Your task to perform on an android device: open app "ColorNote Notepad Notes" (install if not already installed) and go to login screen Image 0: 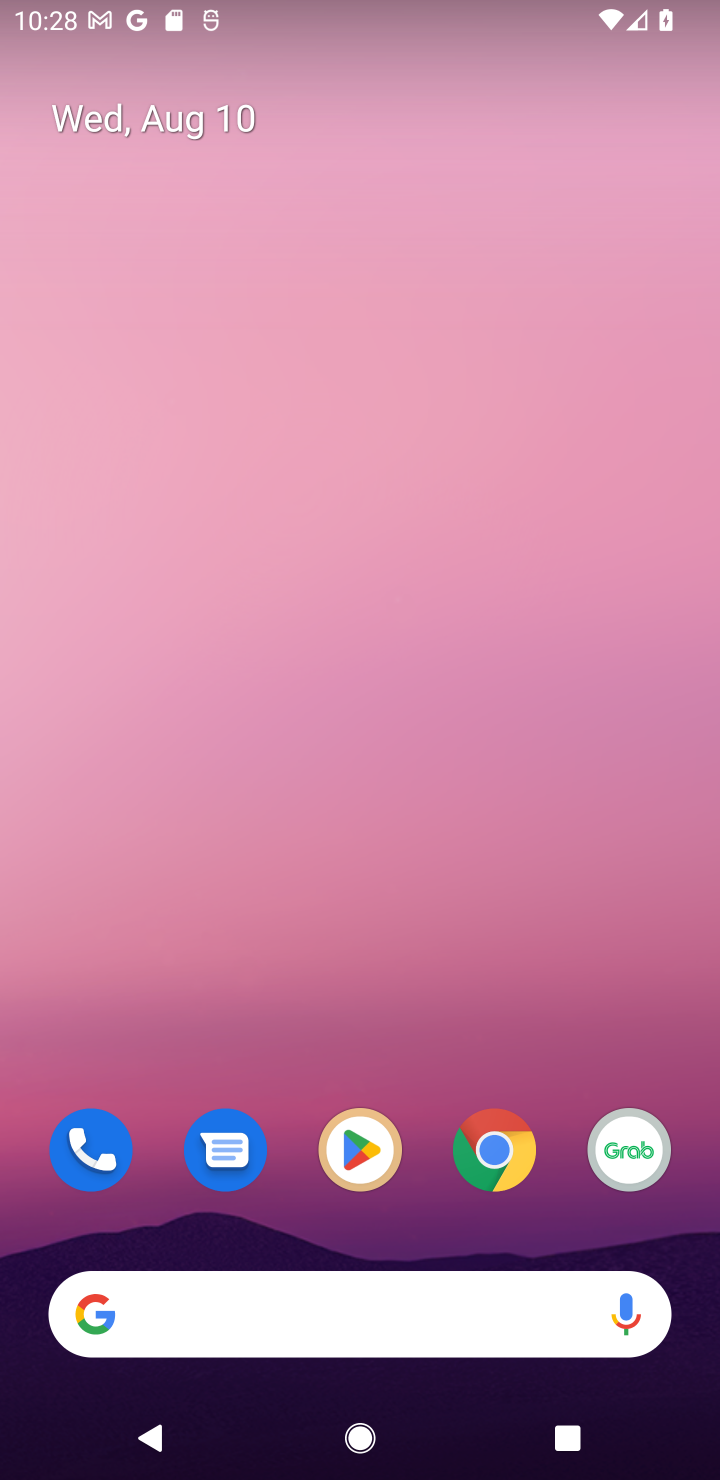
Step 0: click (358, 1133)
Your task to perform on an android device: open app "ColorNote Notepad Notes" (install if not already installed) and go to login screen Image 1: 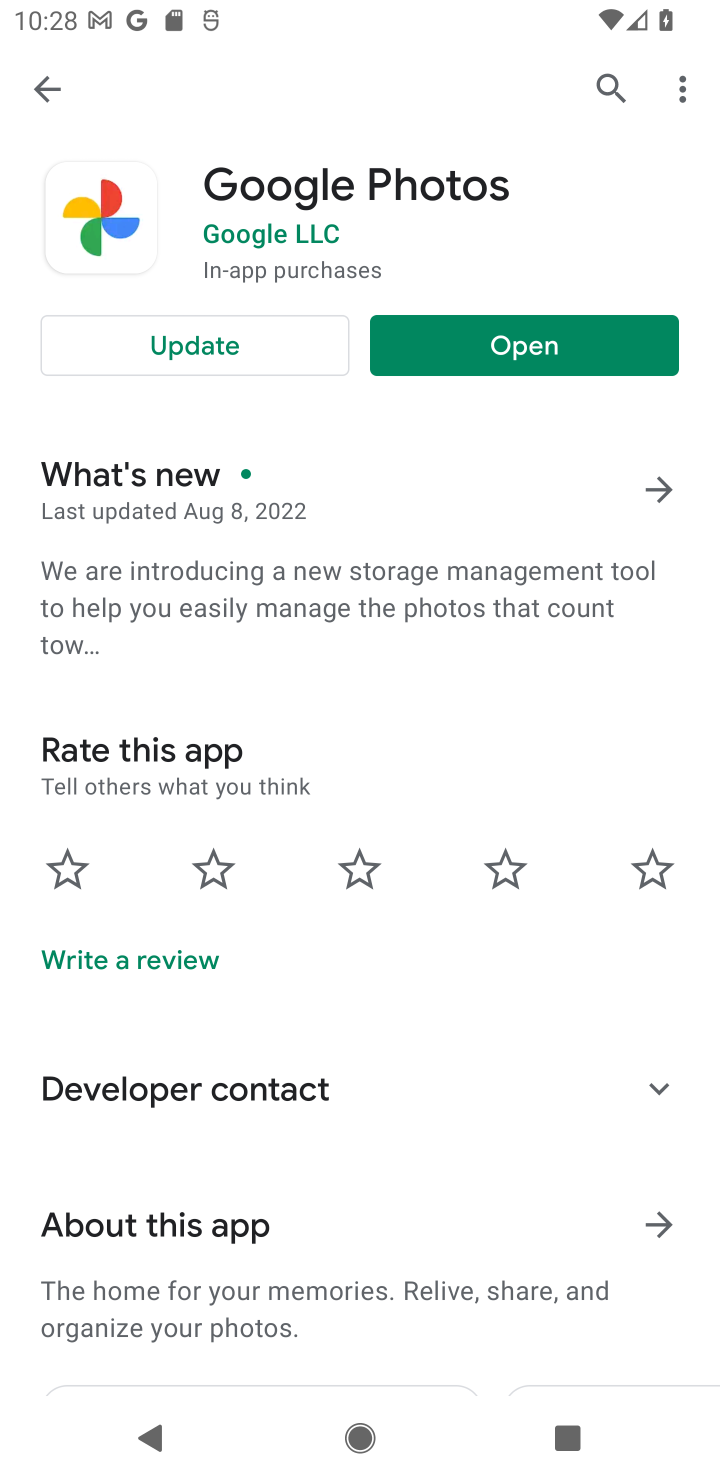
Step 1: click (613, 85)
Your task to perform on an android device: open app "ColorNote Notepad Notes" (install if not already installed) and go to login screen Image 2: 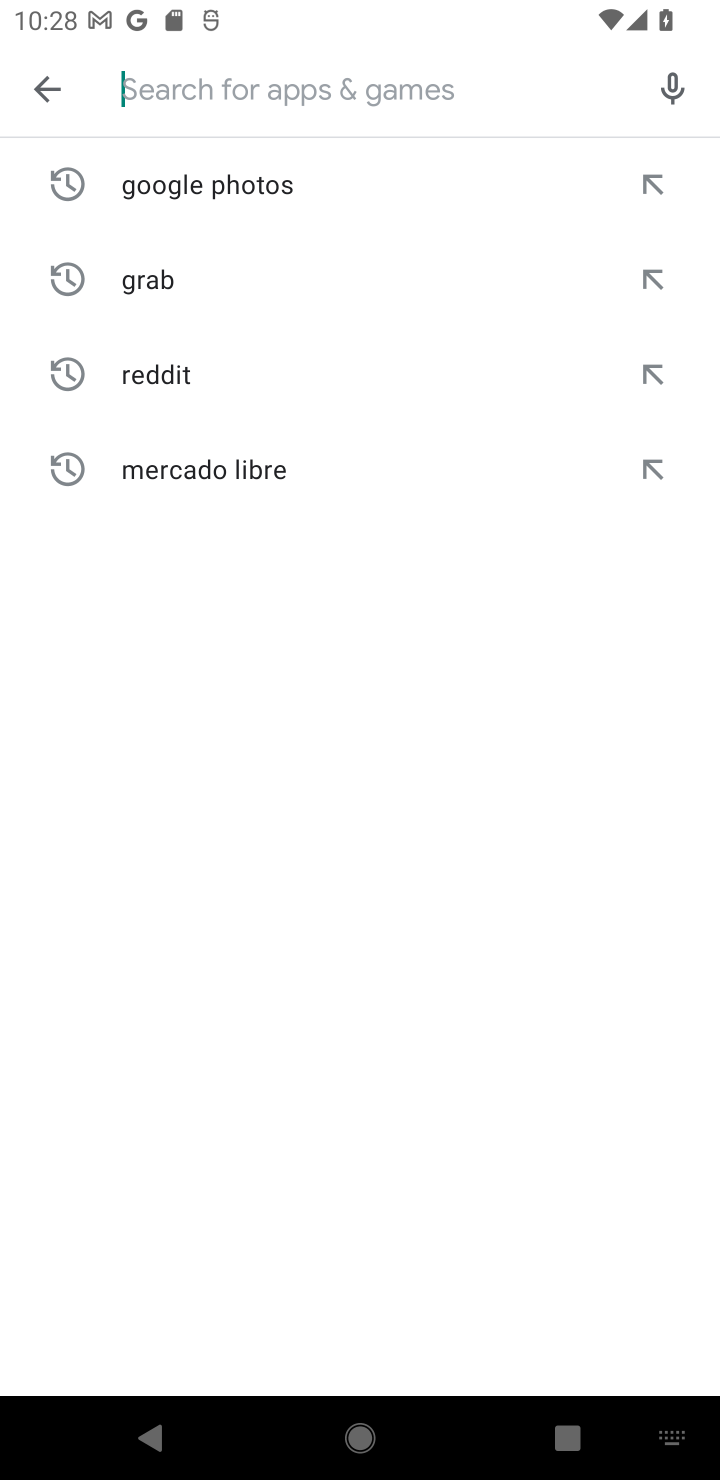
Step 2: type "ColorNote Notepad Notes"
Your task to perform on an android device: open app "ColorNote Notepad Notes" (install if not already installed) and go to login screen Image 3: 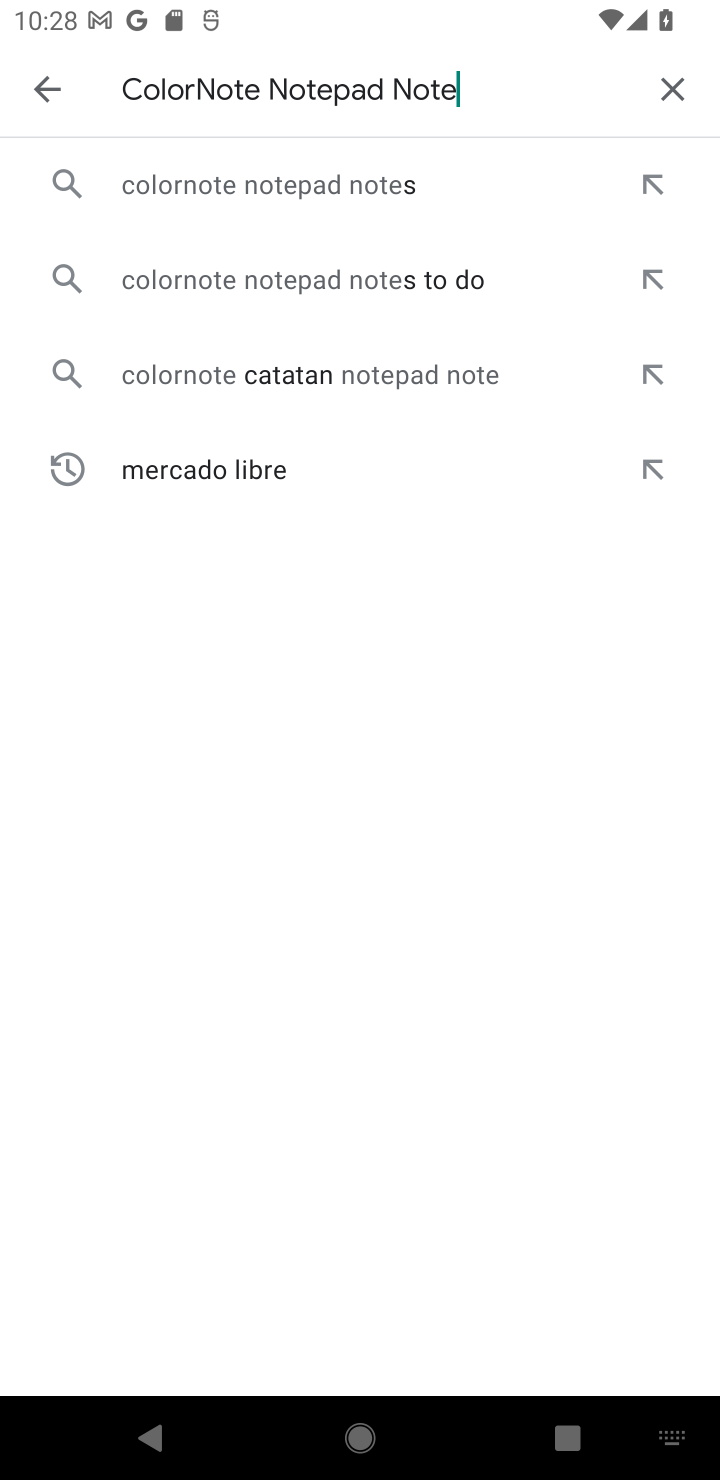
Step 3: type ""
Your task to perform on an android device: open app "ColorNote Notepad Notes" (install if not already installed) and go to login screen Image 4: 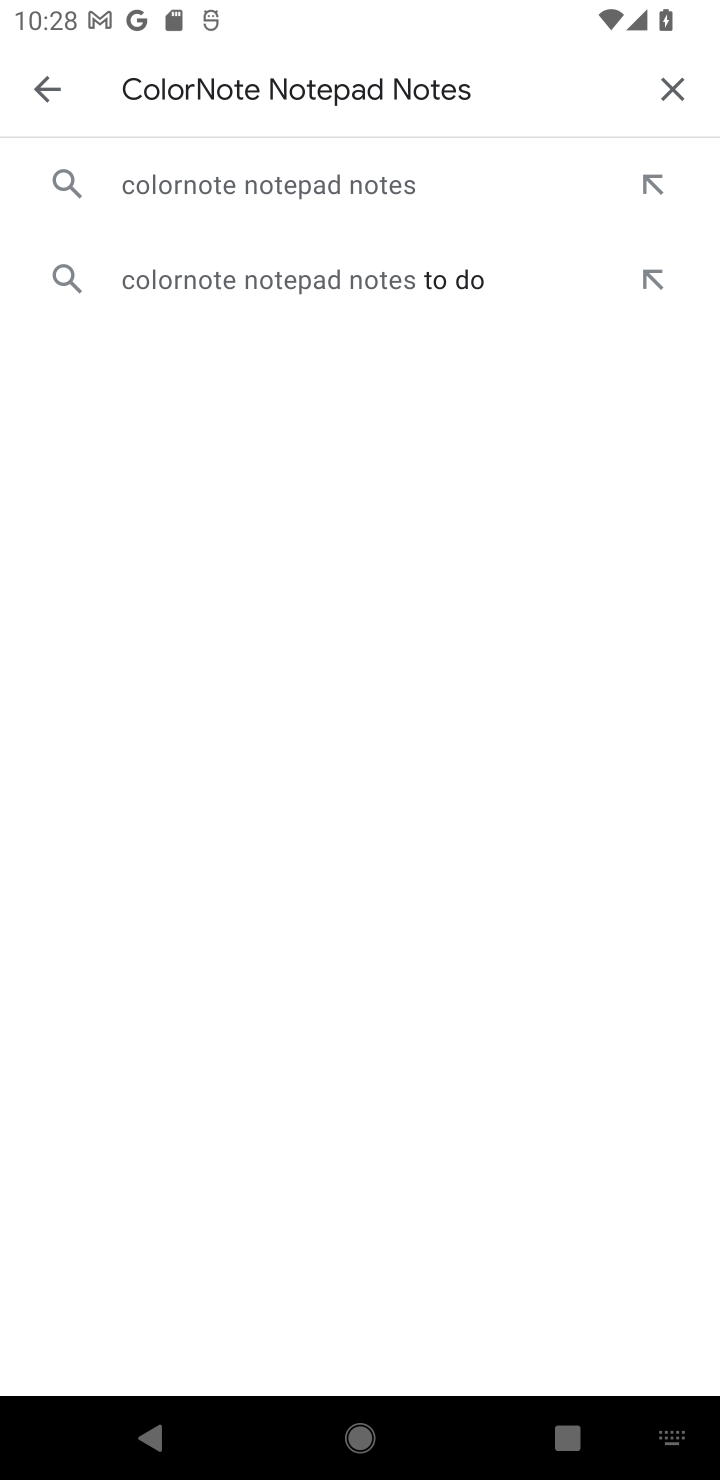
Step 4: click (341, 175)
Your task to perform on an android device: open app "ColorNote Notepad Notes" (install if not already installed) and go to login screen Image 5: 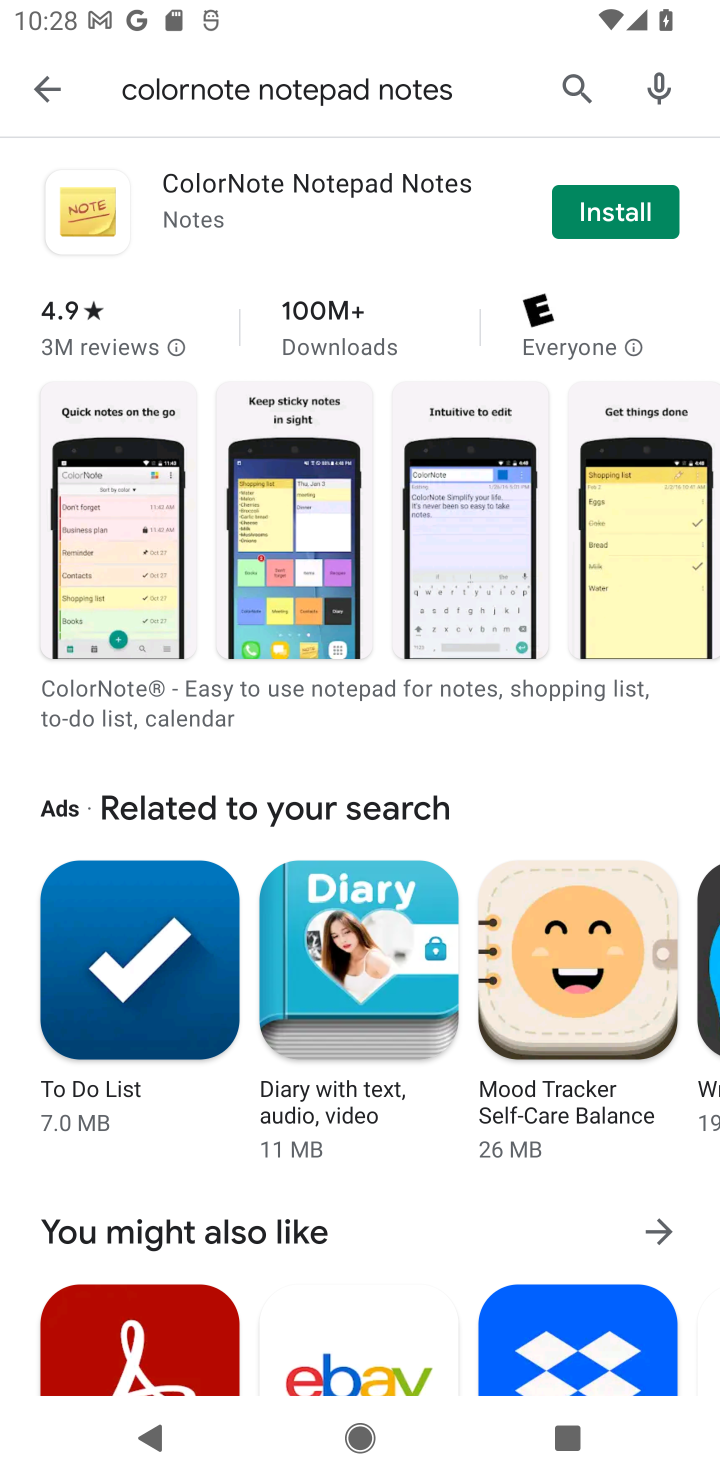
Step 5: click (597, 200)
Your task to perform on an android device: open app "ColorNote Notepad Notes" (install if not already installed) and go to login screen Image 6: 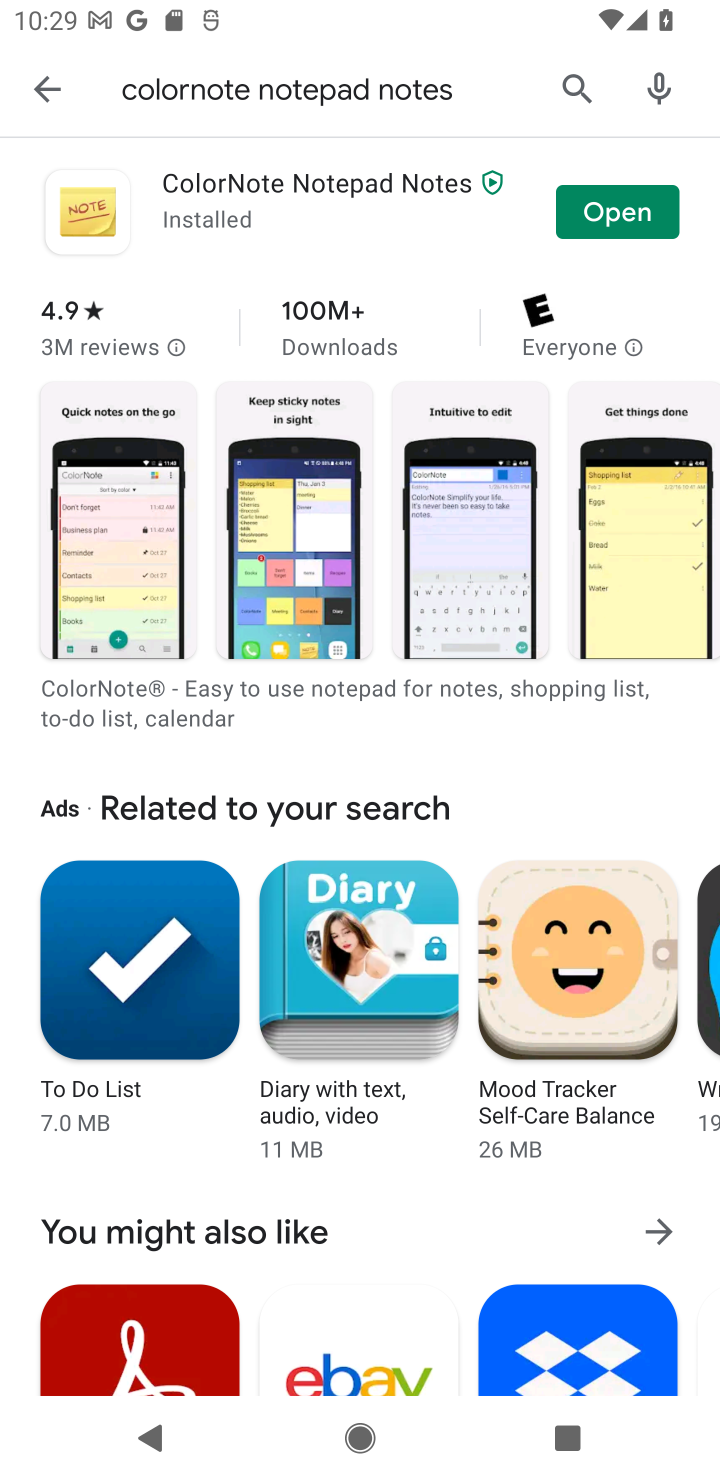
Step 6: click (625, 183)
Your task to perform on an android device: open app "ColorNote Notepad Notes" (install if not already installed) and go to login screen Image 7: 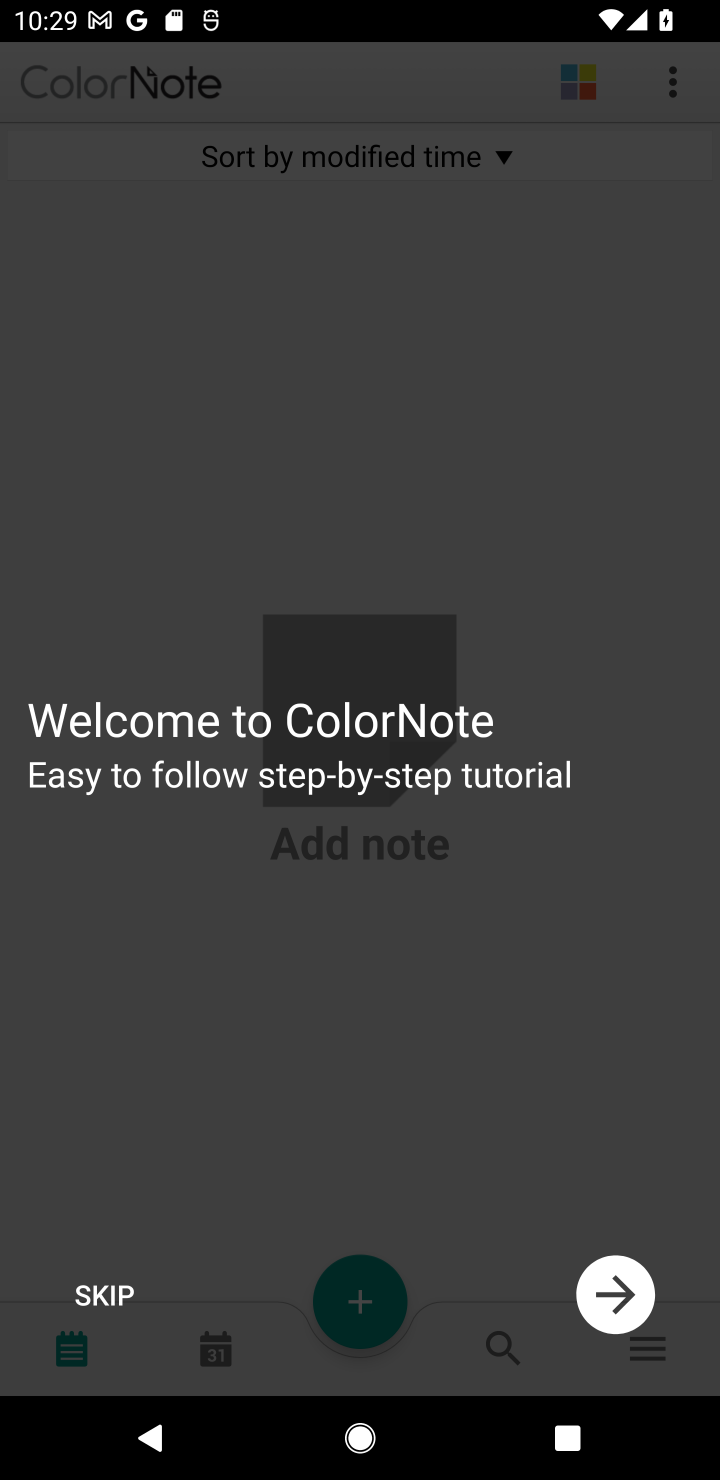
Step 7: task complete